Your task to perform on an android device: turn off sleep mode Image 0: 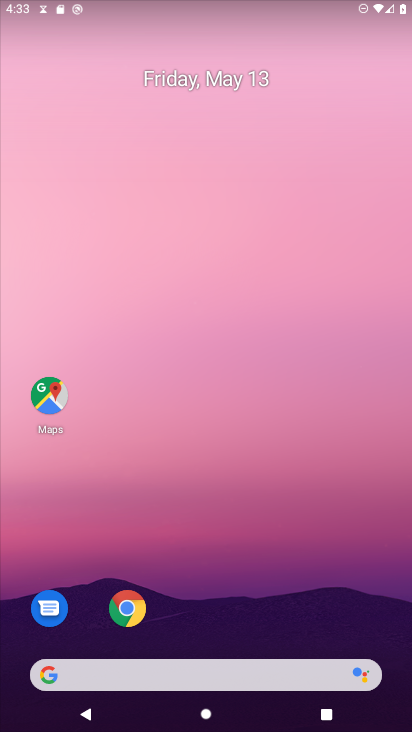
Step 0: drag from (152, 657) to (88, 108)
Your task to perform on an android device: turn off sleep mode Image 1: 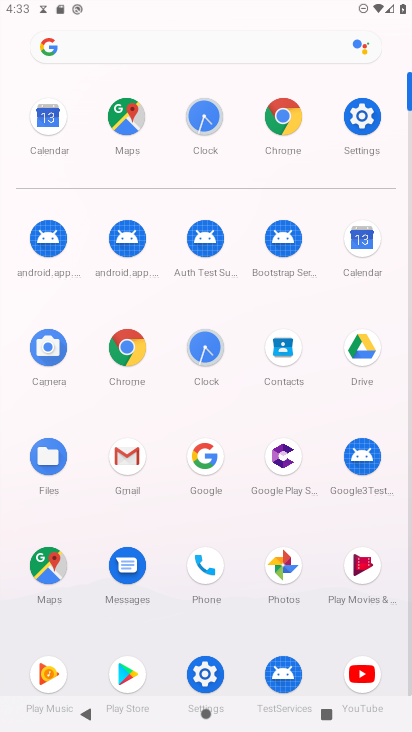
Step 1: click (372, 114)
Your task to perform on an android device: turn off sleep mode Image 2: 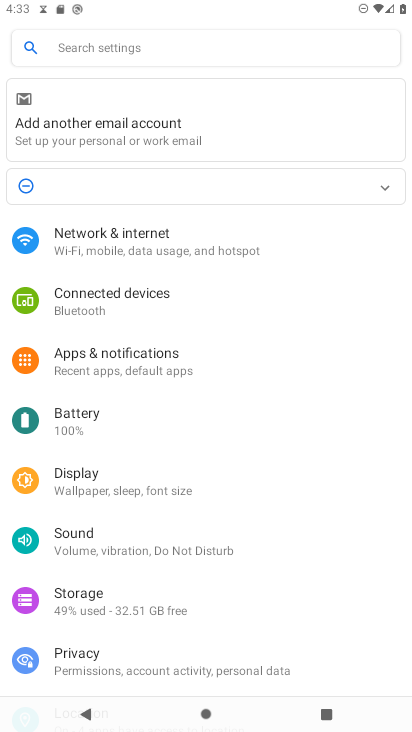
Step 2: click (89, 533)
Your task to perform on an android device: turn off sleep mode Image 3: 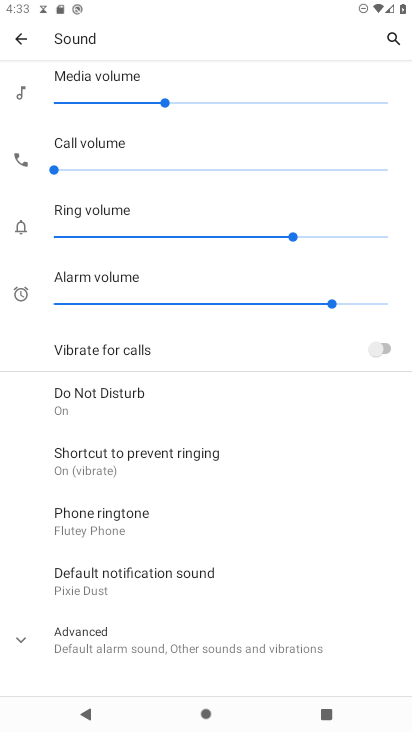
Step 3: press back button
Your task to perform on an android device: turn off sleep mode Image 4: 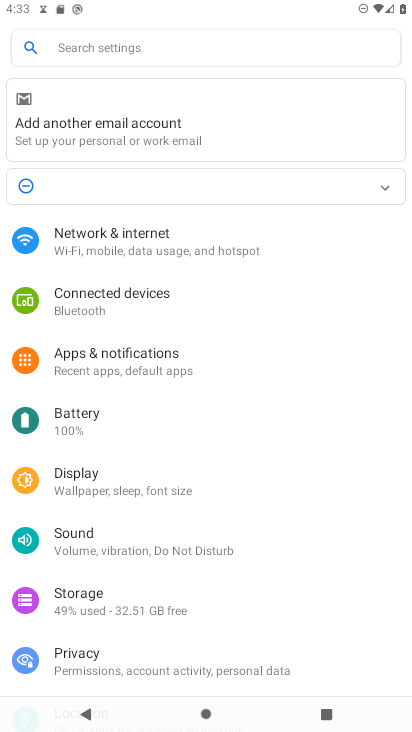
Step 4: click (129, 489)
Your task to perform on an android device: turn off sleep mode Image 5: 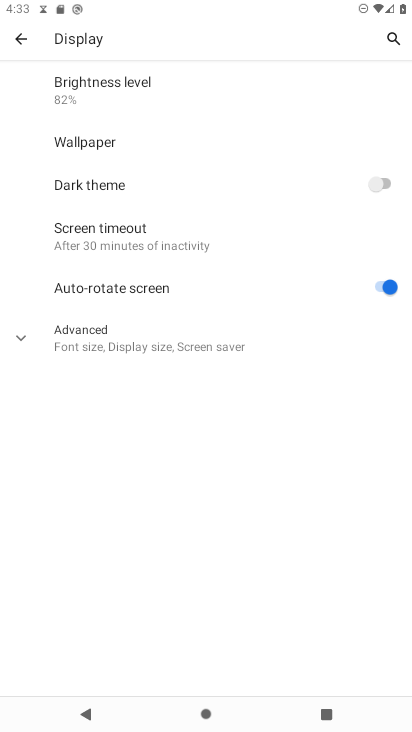
Step 5: task complete